Your task to perform on an android device: Open calendar and show me the second week of next month Image 0: 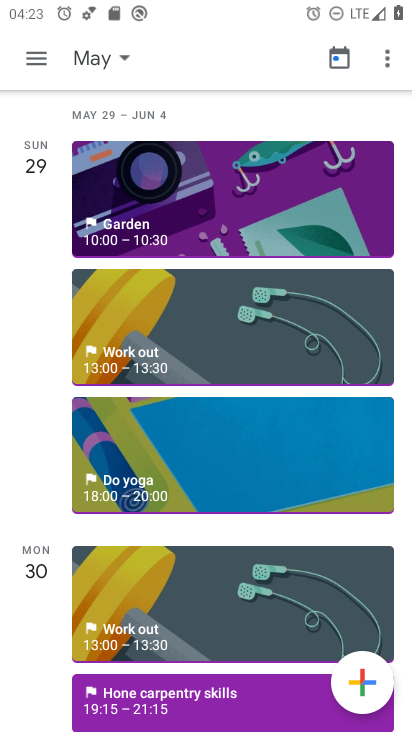
Step 0: press home button
Your task to perform on an android device: Open calendar and show me the second week of next month Image 1: 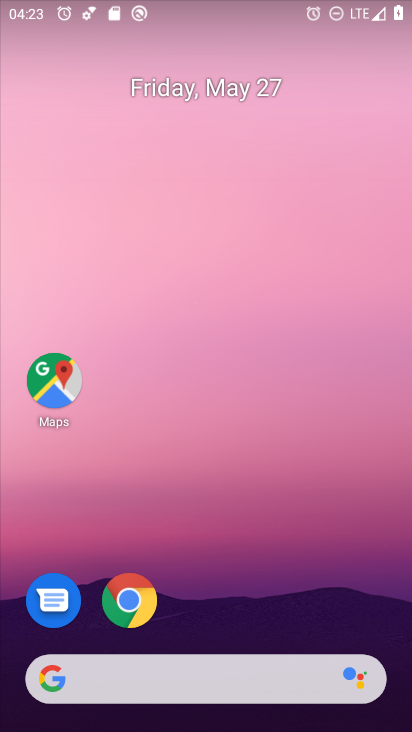
Step 1: drag from (233, 727) to (235, 173)
Your task to perform on an android device: Open calendar and show me the second week of next month Image 2: 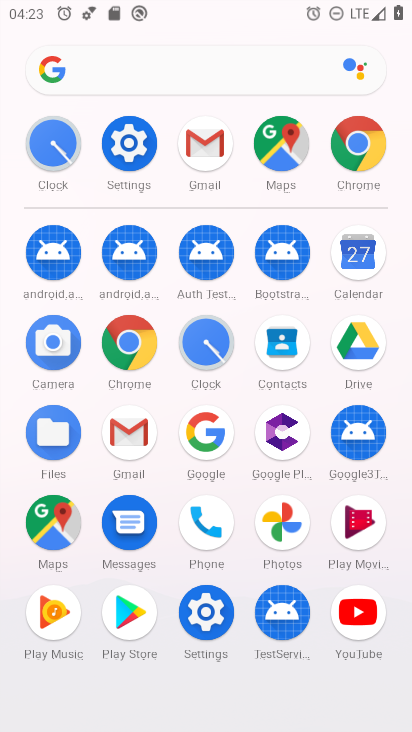
Step 2: click (348, 252)
Your task to perform on an android device: Open calendar and show me the second week of next month Image 3: 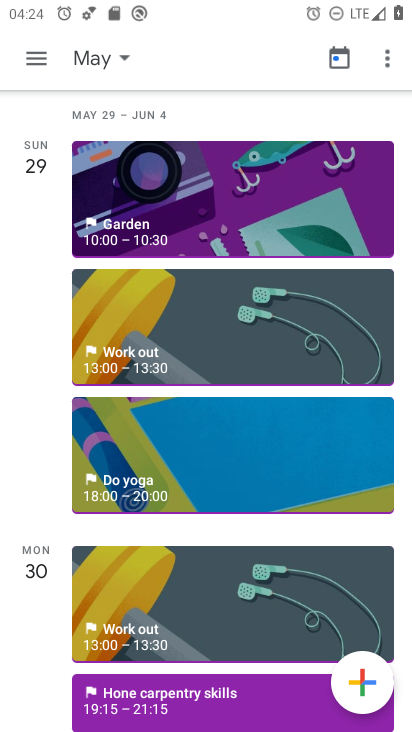
Step 3: click (96, 60)
Your task to perform on an android device: Open calendar and show me the second week of next month Image 4: 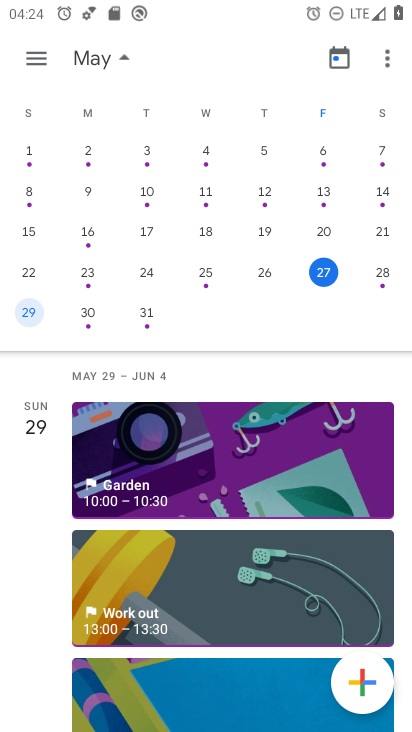
Step 4: drag from (365, 215) to (0, 217)
Your task to perform on an android device: Open calendar and show me the second week of next month Image 5: 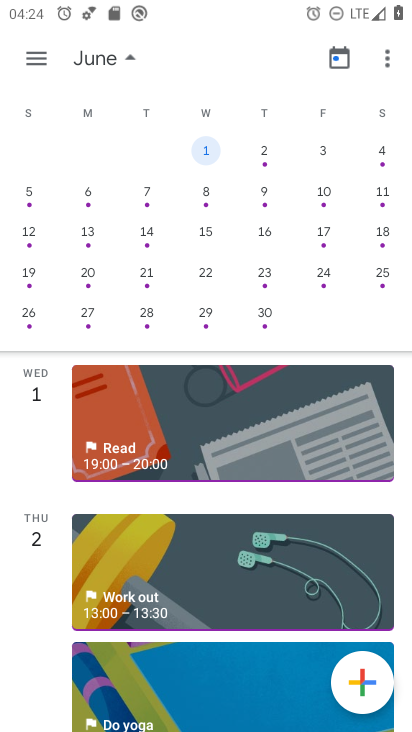
Step 5: click (88, 230)
Your task to perform on an android device: Open calendar and show me the second week of next month Image 6: 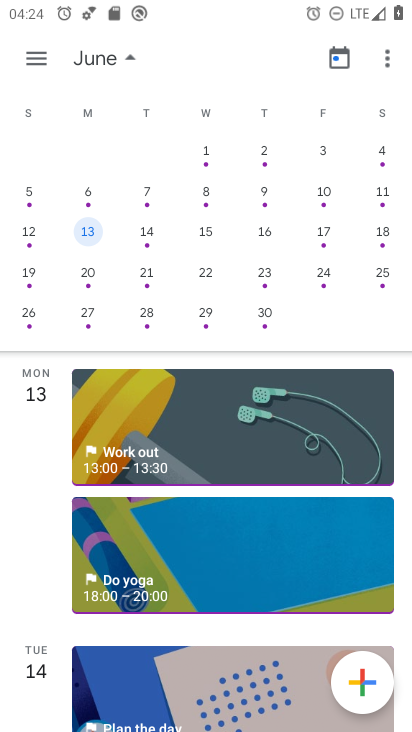
Step 6: click (35, 57)
Your task to perform on an android device: Open calendar and show me the second week of next month Image 7: 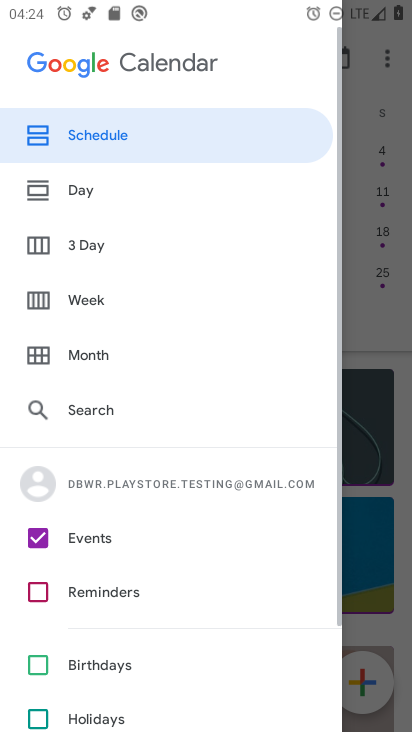
Step 7: click (94, 298)
Your task to perform on an android device: Open calendar and show me the second week of next month Image 8: 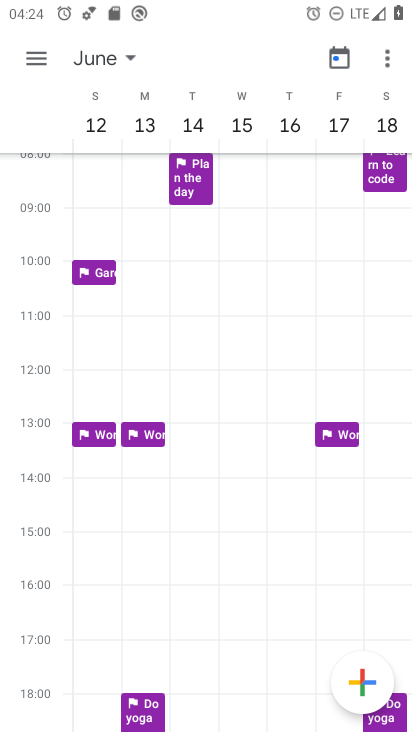
Step 8: task complete